Your task to perform on an android device: Go to notification settings Image 0: 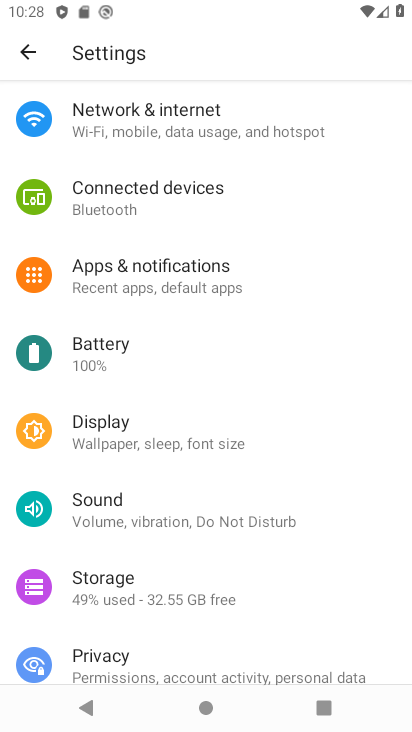
Step 0: press home button
Your task to perform on an android device: Go to notification settings Image 1: 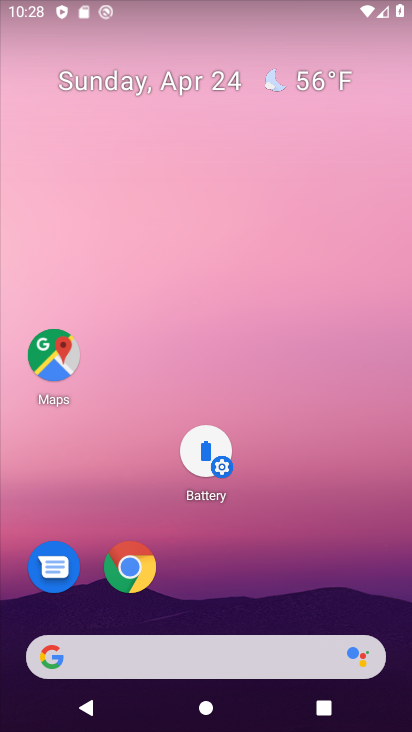
Step 1: drag from (48, 570) to (355, 129)
Your task to perform on an android device: Go to notification settings Image 2: 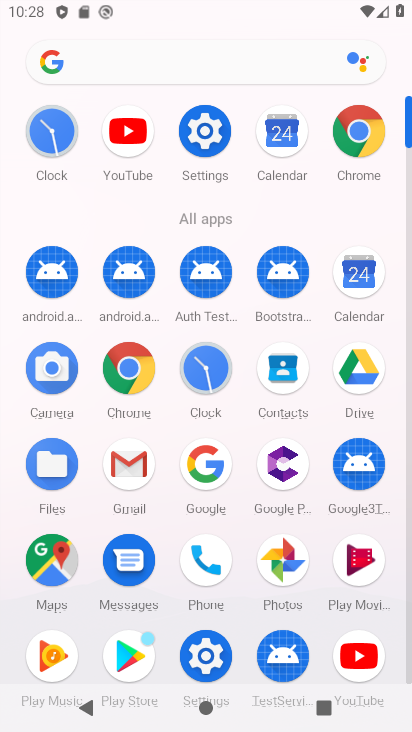
Step 2: click (187, 130)
Your task to perform on an android device: Go to notification settings Image 3: 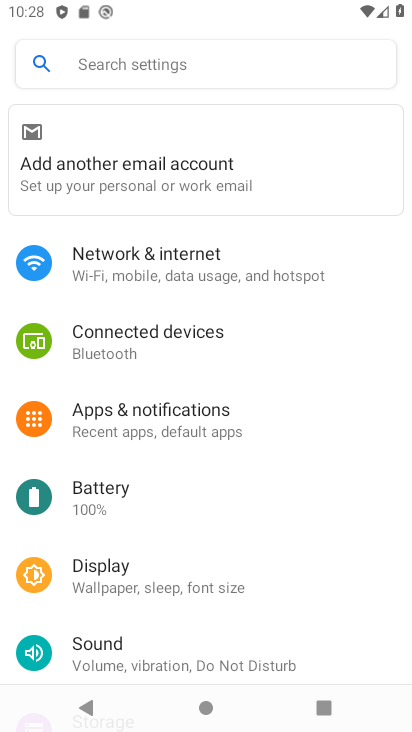
Step 3: click (202, 410)
Your task to perform on an android device: Go to notification settings Image 4: 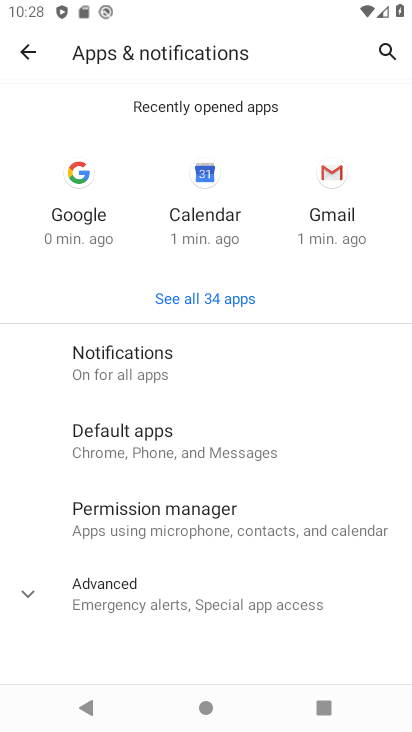
Step 4: click (205, 350)
Your task to perform on an android device: Go to notification settings Image 5: 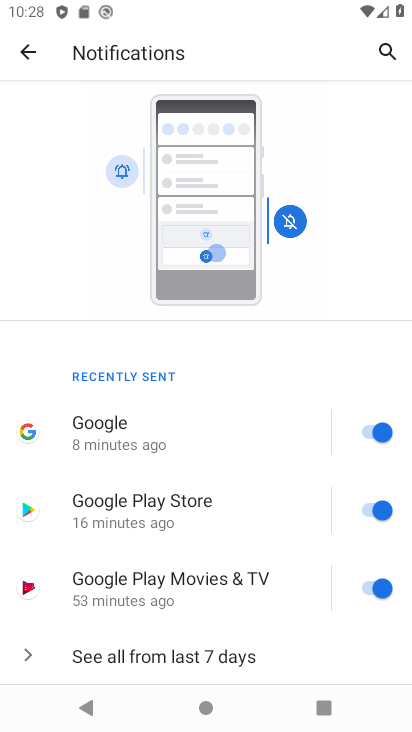
Step 5: task complete